Your task to perform on an android device: clear history in the chrome app Image 0: 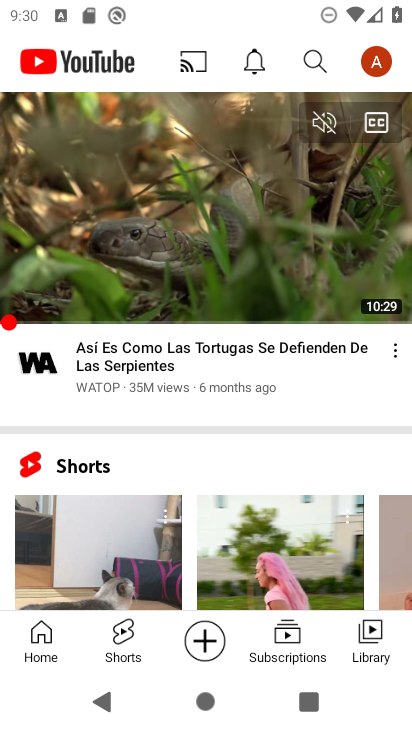
Step 0: press home button
Your task to perform on an android device: clear history in the chrome app Image 1: 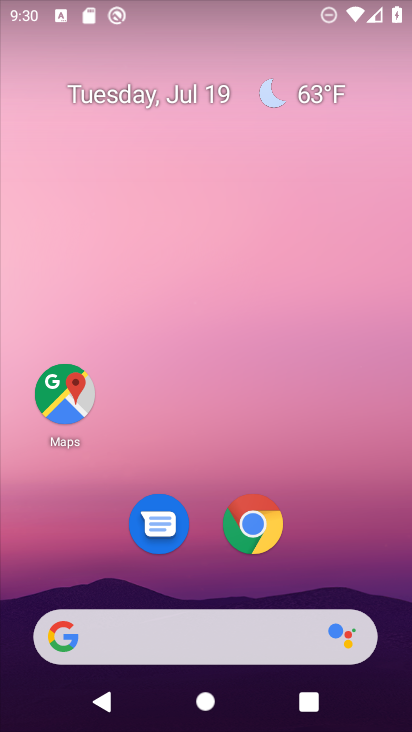
Step 1: click (258, 519)
Your task to perform on an android device: clear history in the chrome app Image 2: 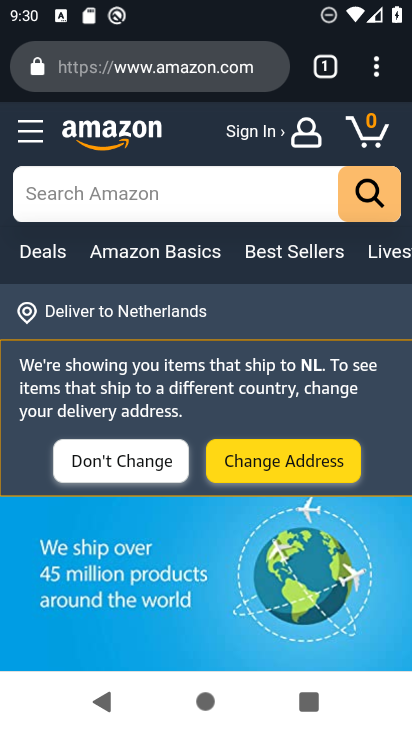
Step 2: click (376, 74)
Your task to perform on an android device: clear history in the chrome app Image 3: 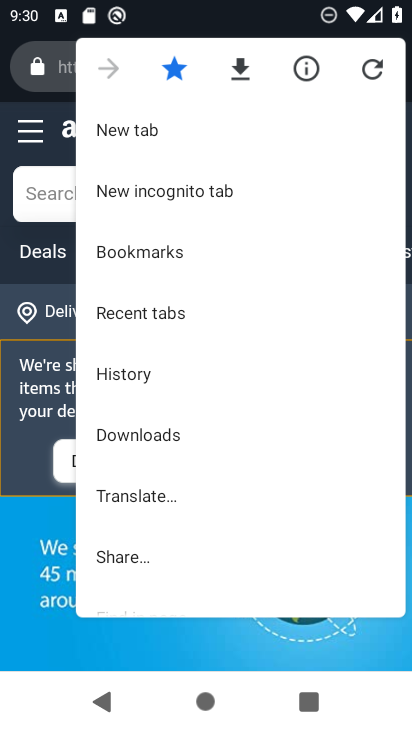
Step 3: click (134, 373)
Your task to perform on an android device: clear history in the chrome app Image 4: 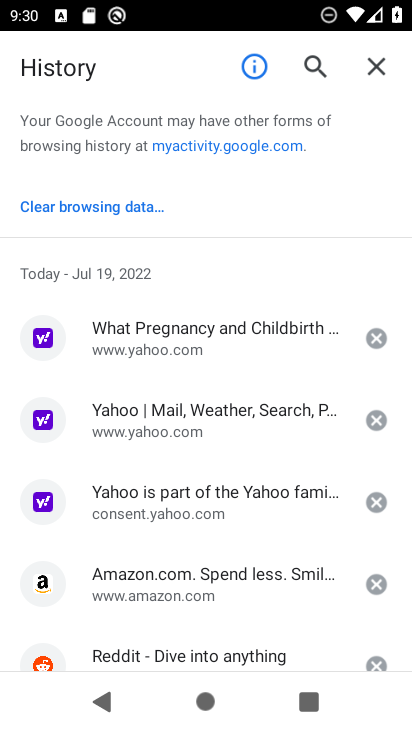
Step 4: click (123, 210)
Your task to perform on an android device: clear history in the chrome app Image 5: 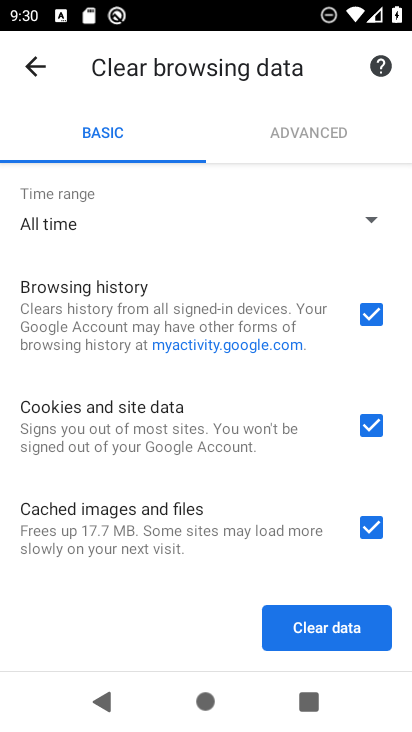
Step 5: click (332, 623)
Your task to perform on an android device: clear history in the chrome app Image 6: 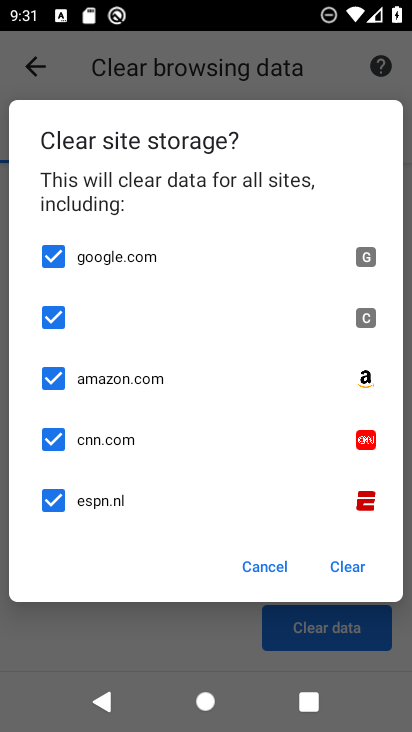
Step 6: click (355, 566)
Your task to perform on an android device: clear history in the chrome app Image 7: 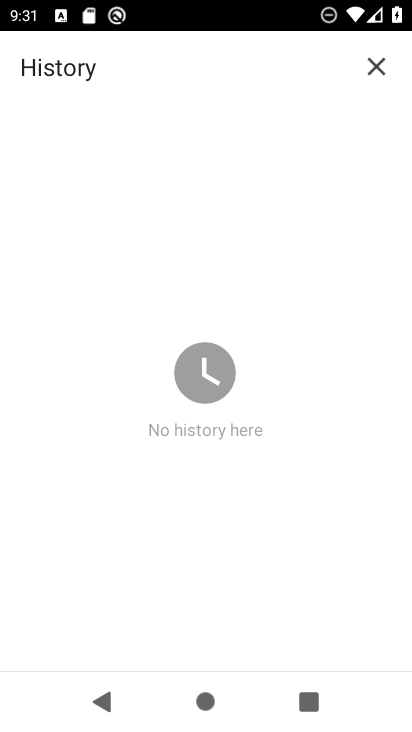
Step 7: task complete